Your task to perform on an android device: delete the emails in spam in the gmail app Image 0: 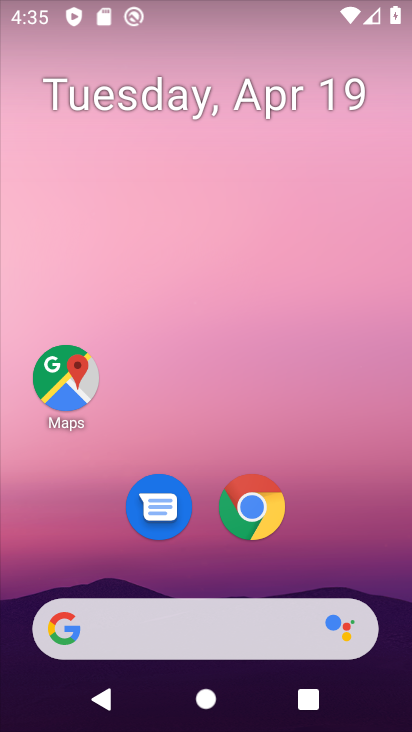
Step 0: drag from (328, 567) to (257, 117)
Your task to perform on an android device: delete the emails in spam in the gmail app Image 1: 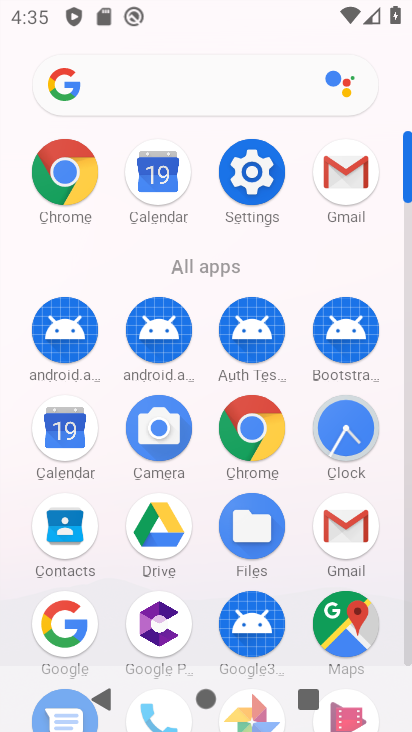
Step 1: click (332, 168)
Your task to perform on an android device: delete the emails in spam in the gmail app Image 2: 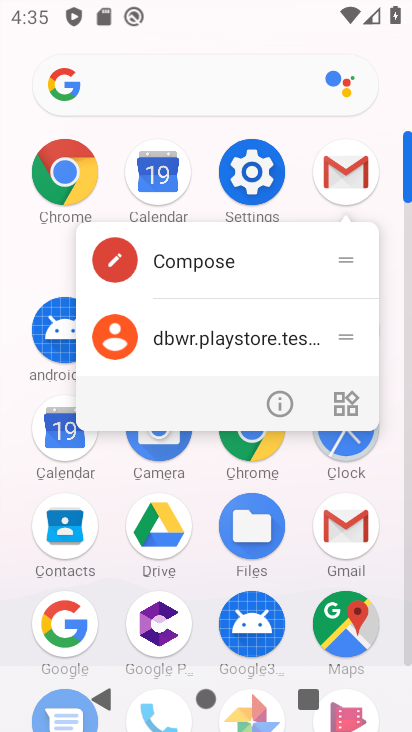
Step 2: click (358, 176)
Your task to perform on an android device: delete the emails in spam in the gmail app Image 3: 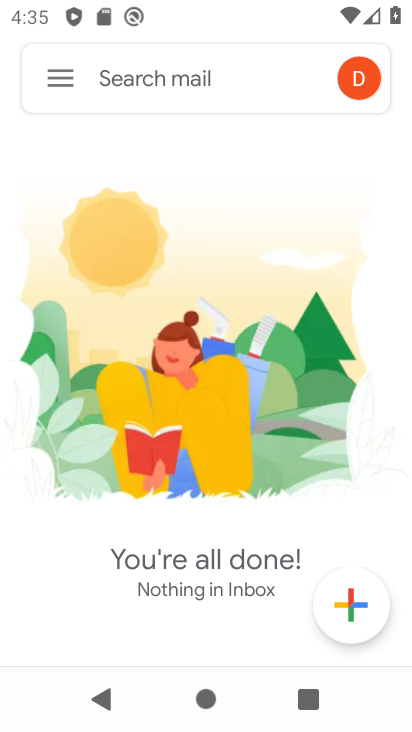
Step 3: click (60, 69)
Your task to perform on an android device: delete the emails in spam in the gmail app Image 4: 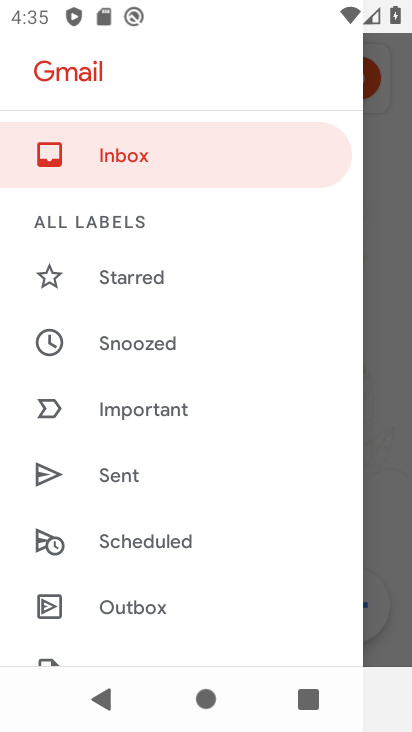
Step 4: drag from (163, 498) to (264, 196)
Your task to perform on an android device: delete the emails in spam in the gmail app Image 5: 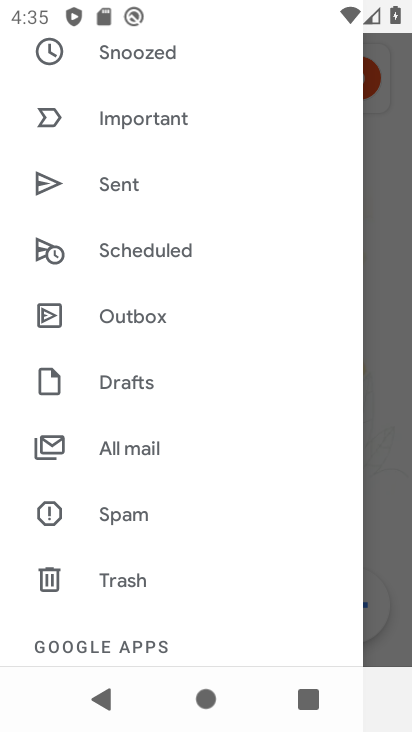
Step 5: click (121, 515)
Your task to perform on an android device: delete the emails in spam in the gmail app Image 6: 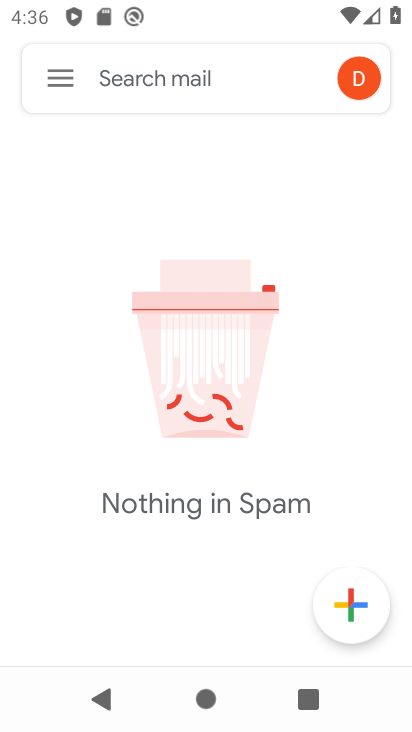
Step 6: task complete